Your task to perform on an android device: open a bookmark in the chrome app Image 0: 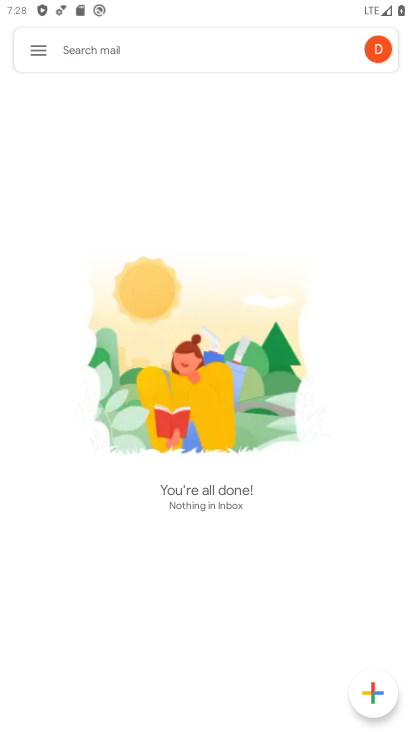
Step 0: press back button
Your task to perform on an android device: open a bookmark in the chrome app Image 1: 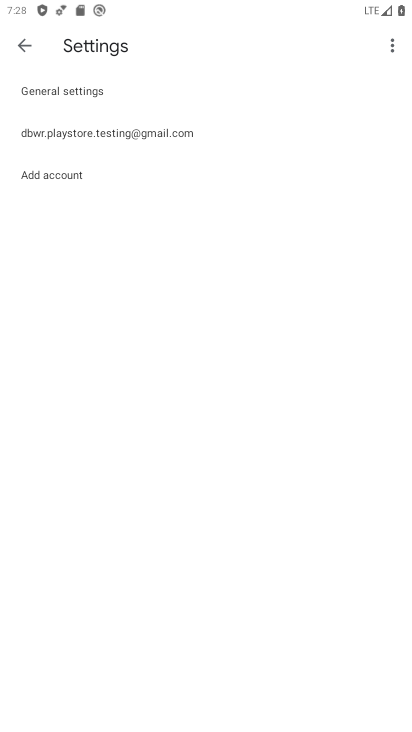
Step 1: press back button
Your task to perform on an android device: open a bookmark in the chrome app Image 2: 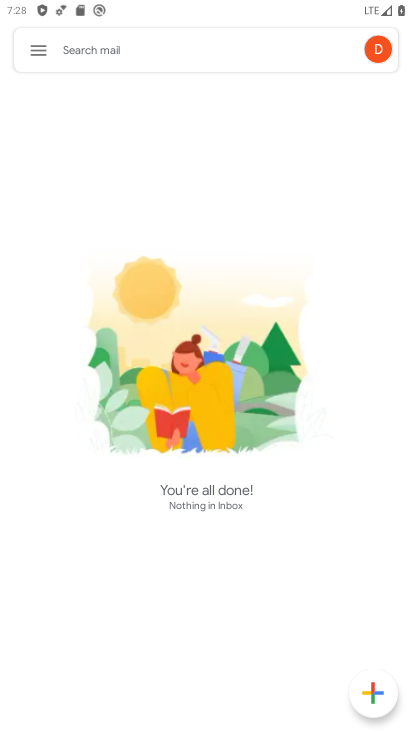
Step 2: press back button
Your task to perform on an android device: open a bookmark in the chrome app Image 3: 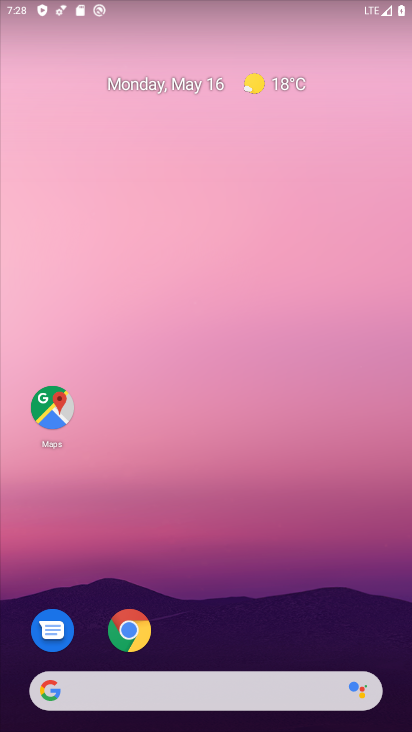
Step 3: click (129, 629)
Your task to perform on an android device: open a bookmark in the chrome app Image 4: 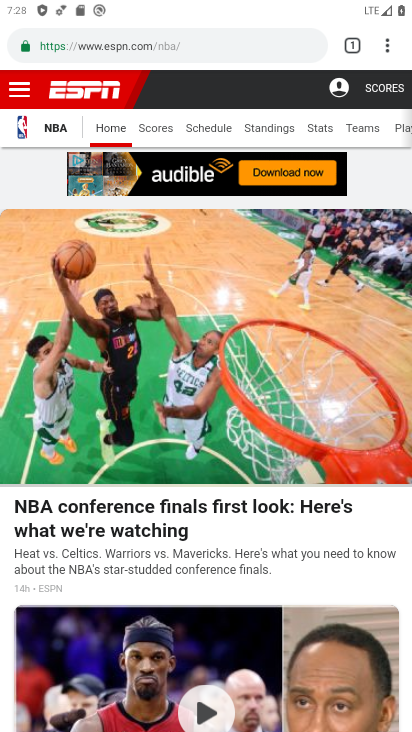
Step 4: click (387, 44)
Your task to perform on an android device: open a bookmark in the chrome app Image 5: 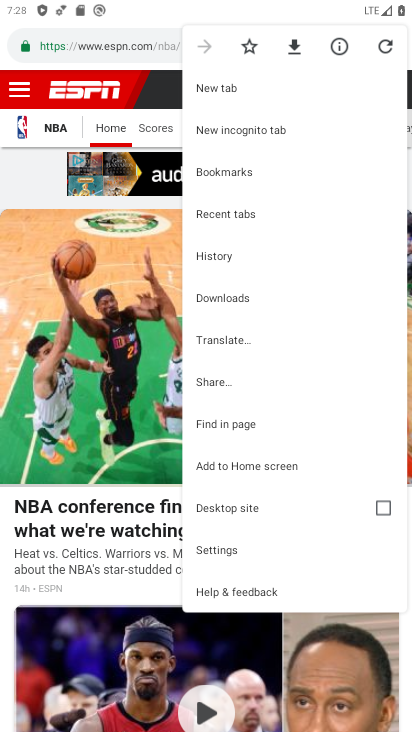
Step 5: click (239, 174)
Your task to perform on an android device: open a bookmark in the chrome app Image 6: 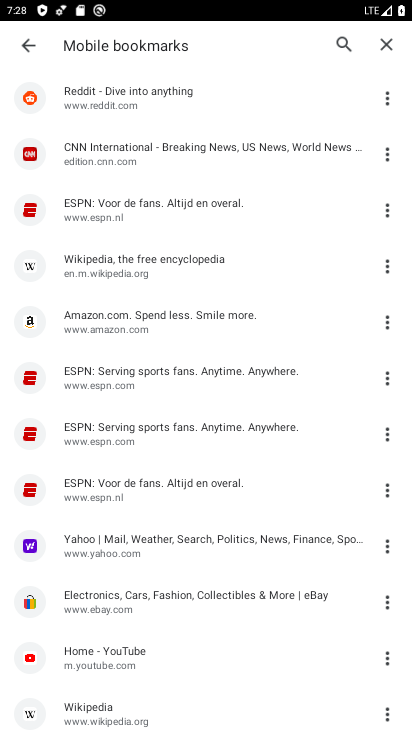
Step 6: task complete